Your task to perform on an android device: Set the phone to "Do not disturb". Image 0: 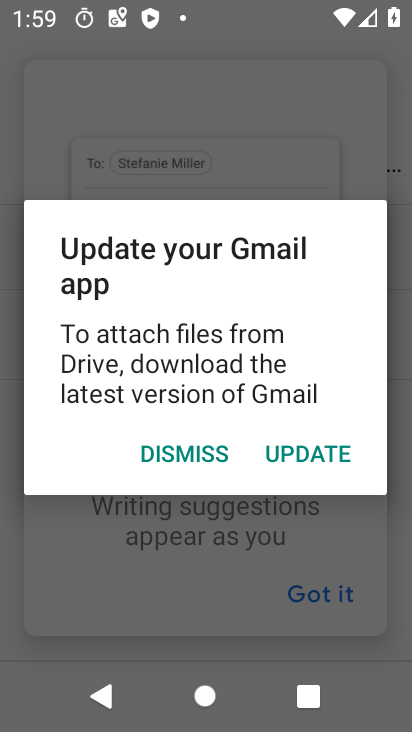
Step 0: click (341, 597)
Your task to perform on an android device: Set the phone to "Do not disturb". Image 1: 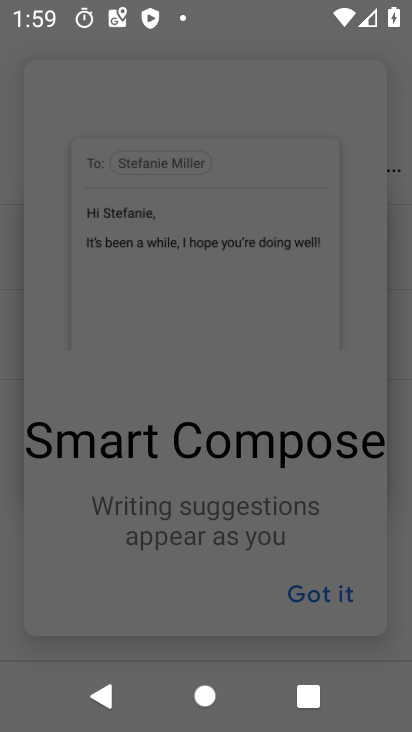
Step 1: click (318, 598)
Your task to perform on an android device: Set the phone to "Do not disturb". Image 2: 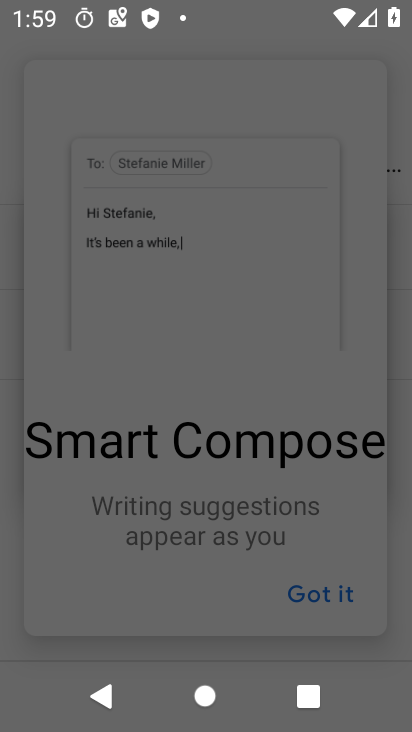
Step 2: press home button
Your task to perform on an android device: Set the phone to "Do not disturb". Image 3: 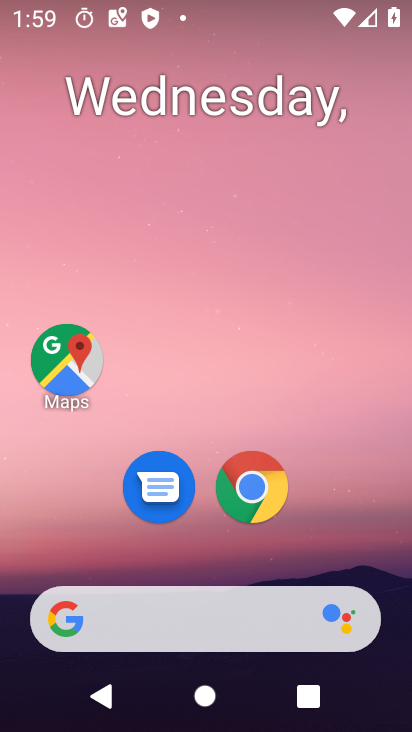
Step 3: drag from (202, 13) to (199, 633)
Your task to perform on an android device: Set the phone to "Do not disturb". Image 4: 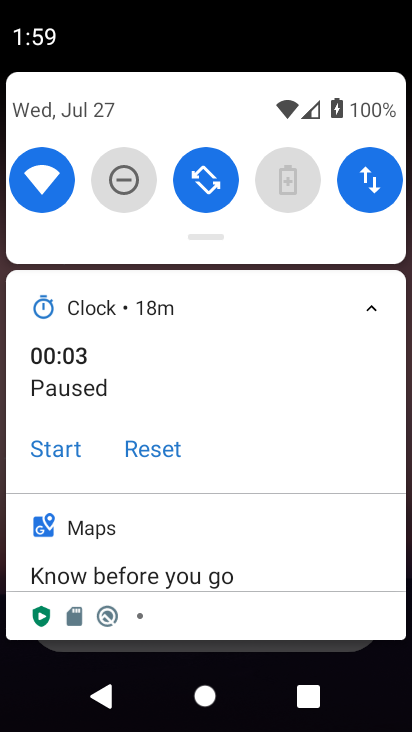
Step 4: click (128, 187)
Your task to perform on an android device: Set the phone to "Do not disturb". Image 5: 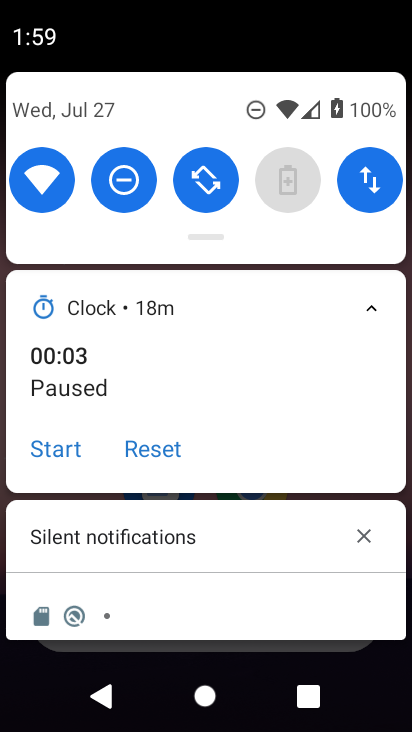
Step 5: task complete